Your task to perform on an android device: Open CNN.com Image 0: 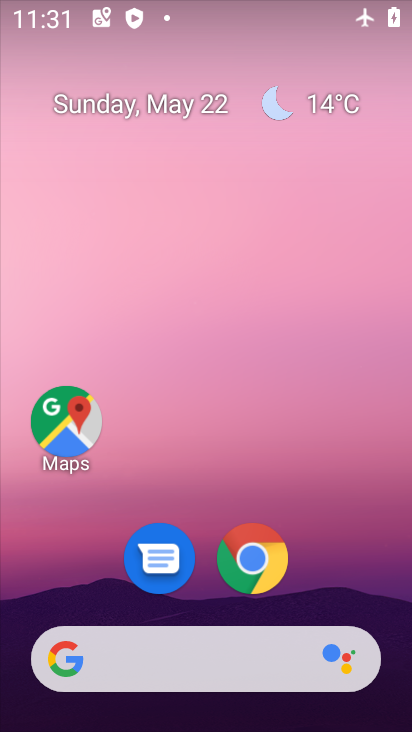
Step 0: click (249, 565)
Your task to perform on an android device: Open CNN.com Image 1: 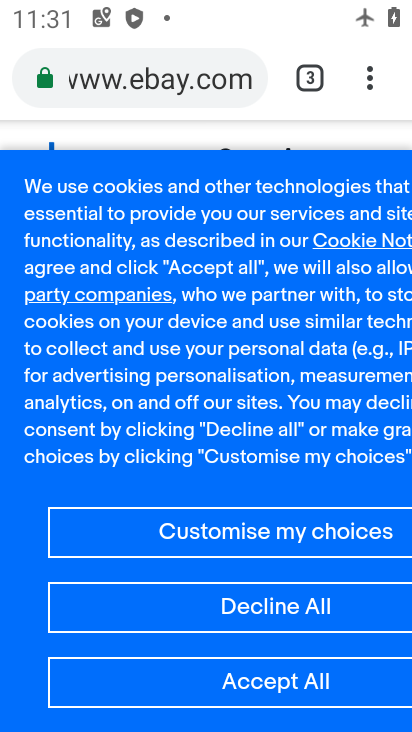
Step 1: click (119, 80)
Your task to perform on an android device: Open CNN.com Image 2: 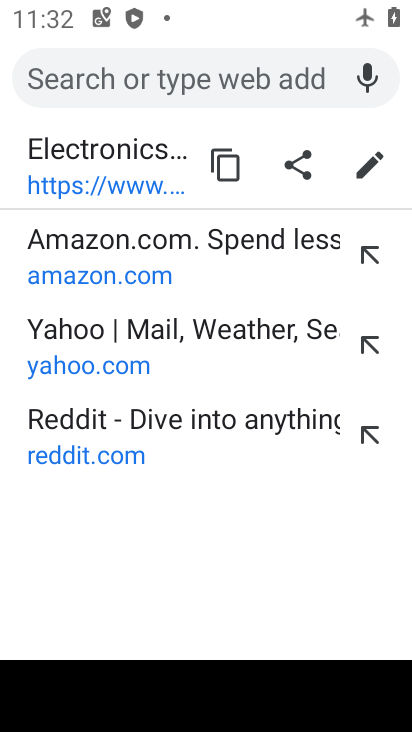
Step 2: type "cnn.com"
Your task to perform on an android device: Open CNN.com Image 3: 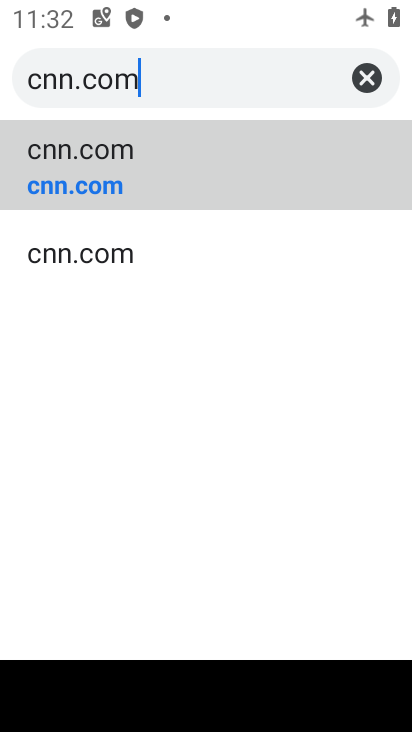
Step 3: click (69, 183)
Your task to perform on an android device: Open CNN.com Image 4: 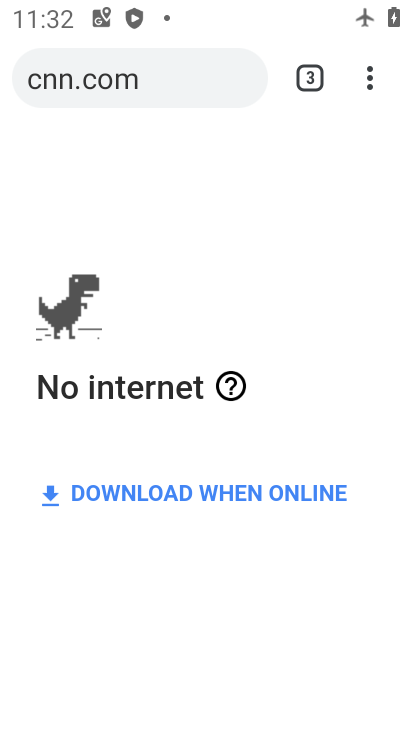
Step 4: task complete